Your task to perform on an android device: Go to display settings Image 0: 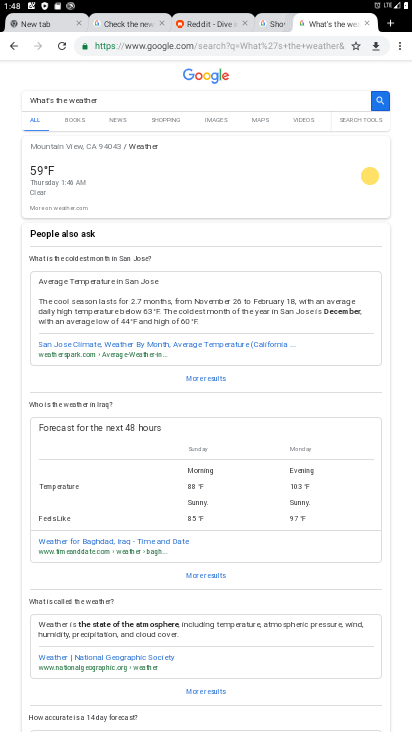
Step 0: press home button
Your task to perform on an android device: Go to display settings Image 1: 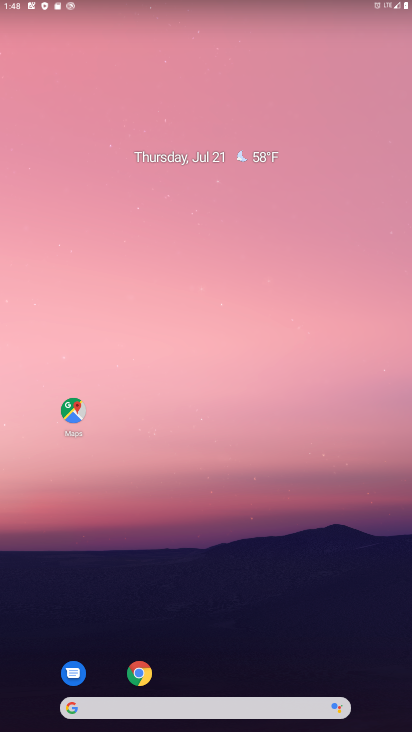
Step 1: drag from (231, 685) to (234, 636)
Your task to perform on an android device: Go to display settings Image 2: 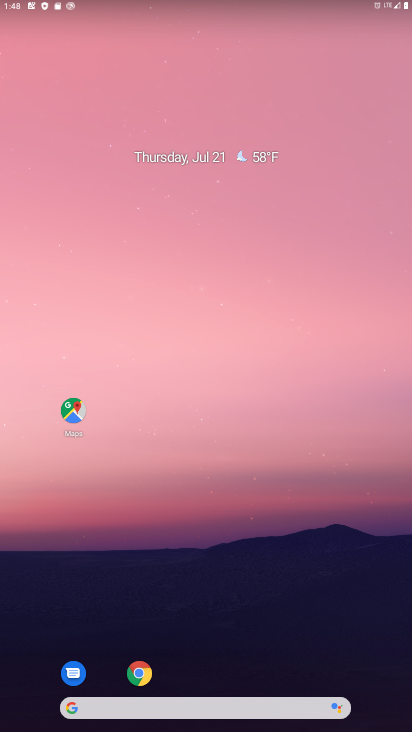
Step 2: drag from (204, 683) to (199, 464)
Your task to perform on an android device: Go to display settings Image 3: 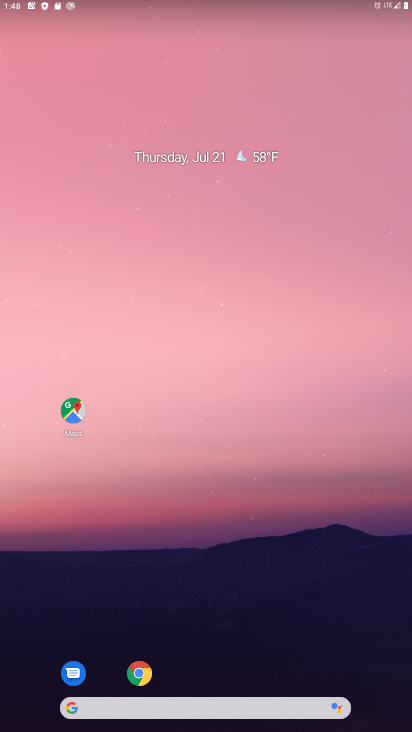
Step 3: drag from (231, 690) to (212, 260)
Your task to perform on an android device: Go to display settings Image 4: 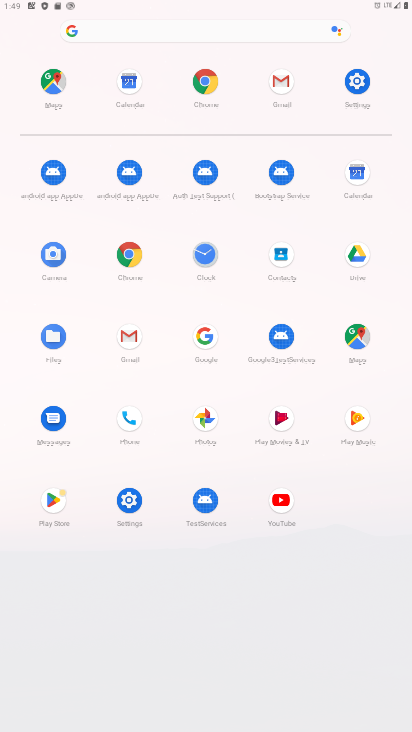
Step 4: click (366, 70)
Your task to perform on an android device: Go to display settings Image 5: 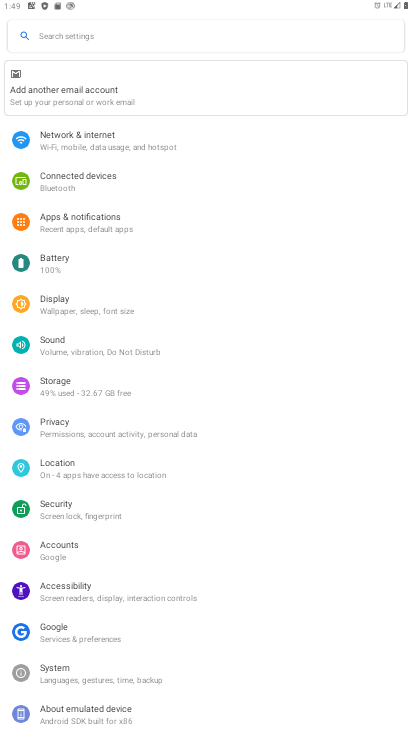
Step 5: click (59, 297)
Your task to perform on an android device: Go to display settings Image 6: 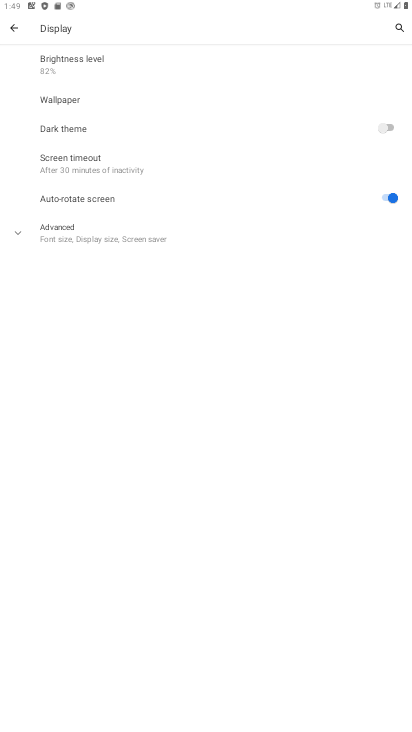
Step 6: task complete